Your task to perform on an android device: Show me recent news Image 0: 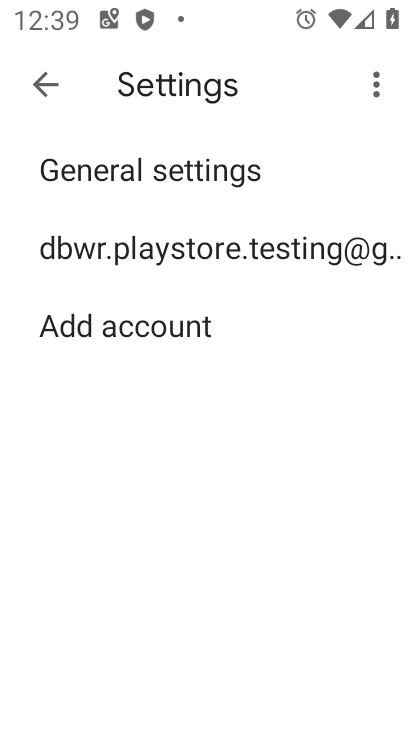
Step 0: press home button
Your task to perform on an android device: Show me recent news Image 1: 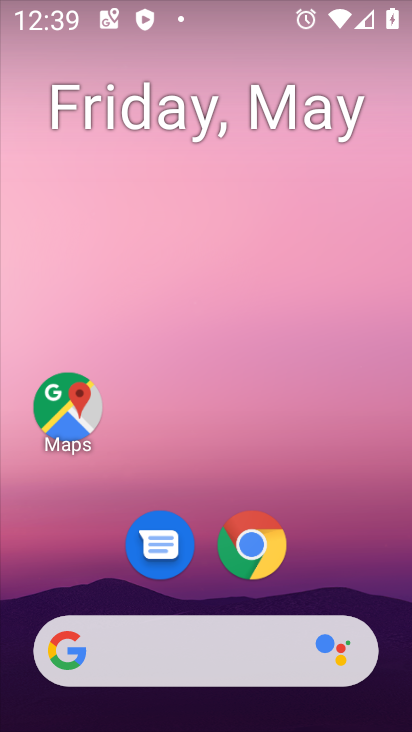
Step 1: click (255, 536)
Your task to perform on an android device: Show me recent news Image 2: 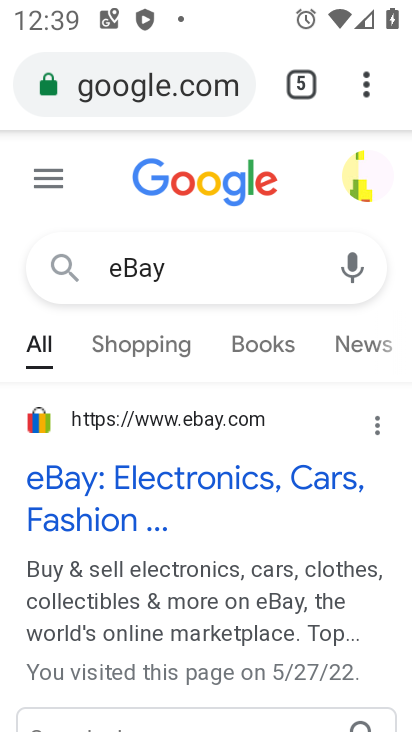
Step 2: click (364, 87)
Your task to perform on an android device: Show me recent news Image 3: 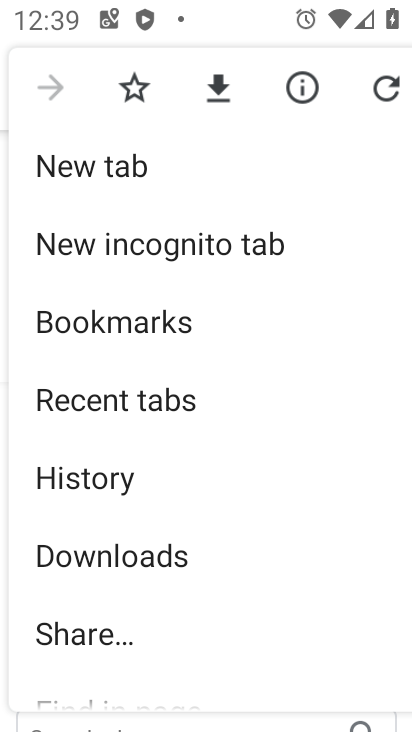
Step 3: click (176, 157)
Your task to perform on an android device: Show me recent news Image 4: 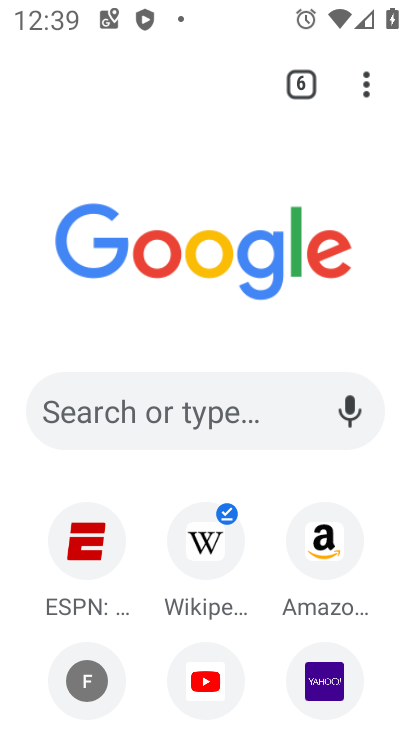
Step 4: click (155, 388)
Your task to perform on an android device: Show me recent news Image 5: 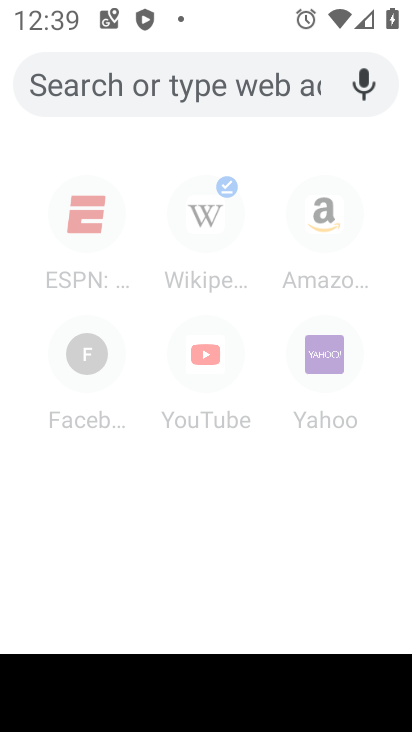
Step 5: type "Show me recent news"
Your task to perform on an android device: Show me recent news Image 6: 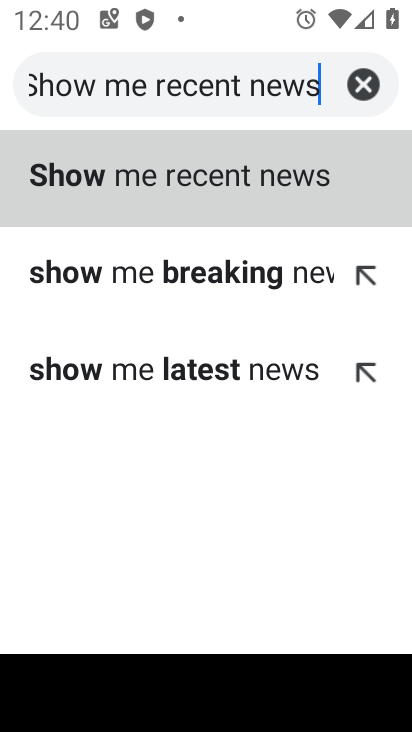
Step 6: click (167, 162)
Your task to perform on an android device: Show me recent news Image 7: 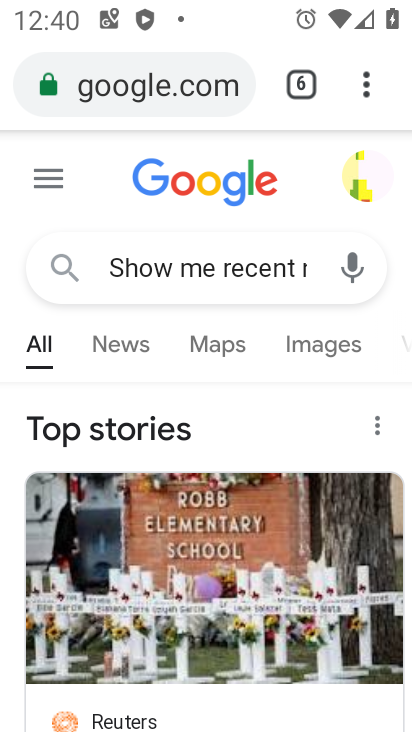
Step 7: task complete